Your task to perform on an android device: Open Google Maps and go to "Timeline" Image 0: 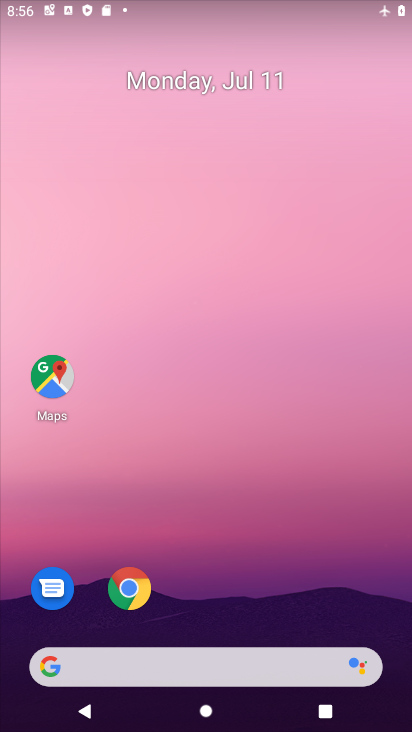
Step 0: drag from (398, 655) to (242, 64)
Your task to perform on an android device: Open Google Maps and go to "Timeline" Image 1: 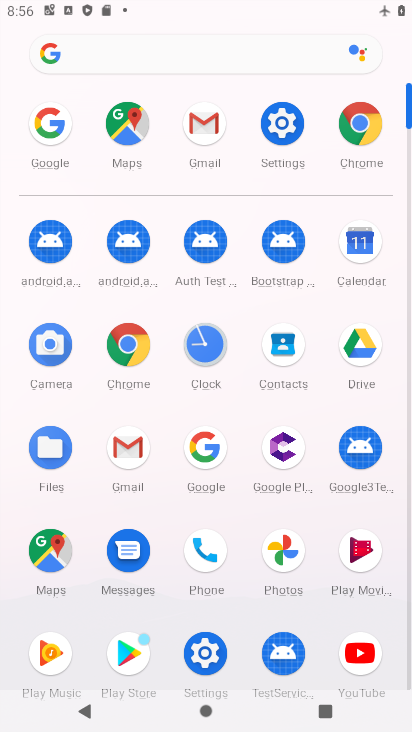
Step 1: click (40, 564)
Your task to perform on an android device: Open Google Maps and go to "Timeline" Image 2: 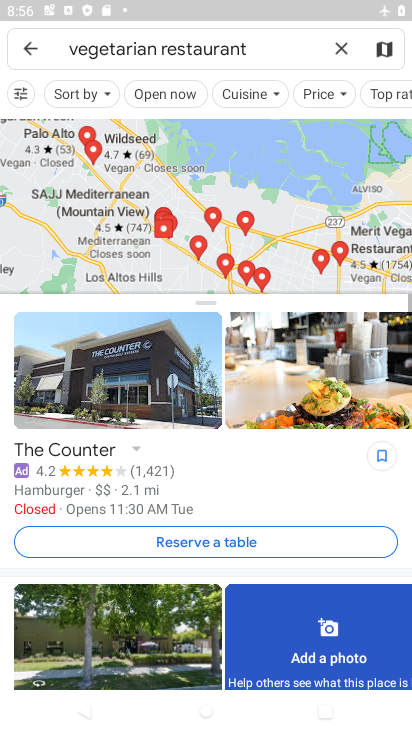
Step 2: click (341, 55)
Your task to perform on an android device: Open Google Maps and go to "Timeline" Image 3: 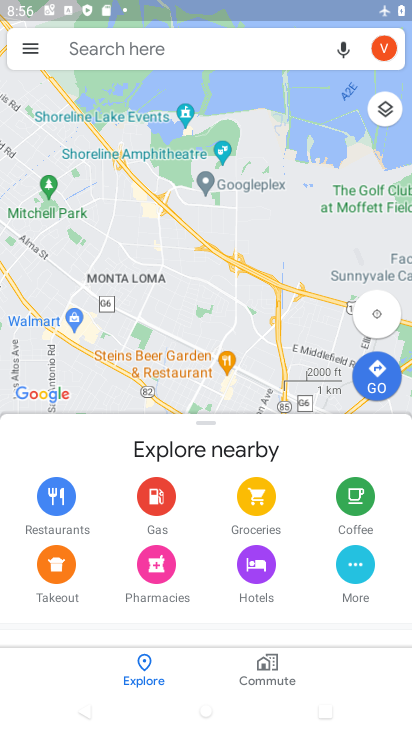
Step 3: click (27, 49)
Your task to perform on an android device: Open Google Maps and go to "Timeline" Image 4: 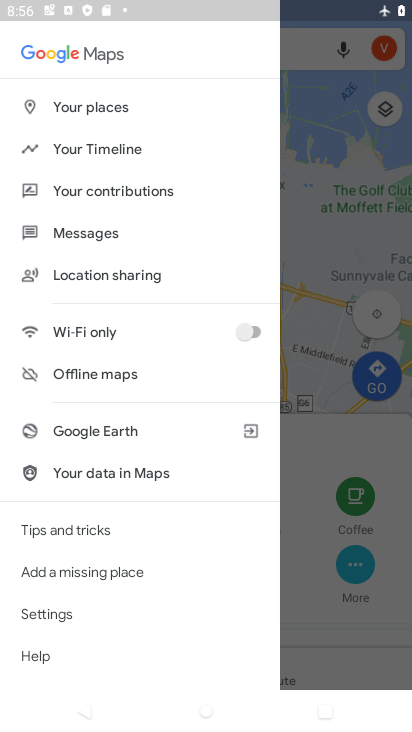
Step 4: click (99, 145)
Your task to perform on an android device: Open Google Maps and go to "Timeline" Image 5: 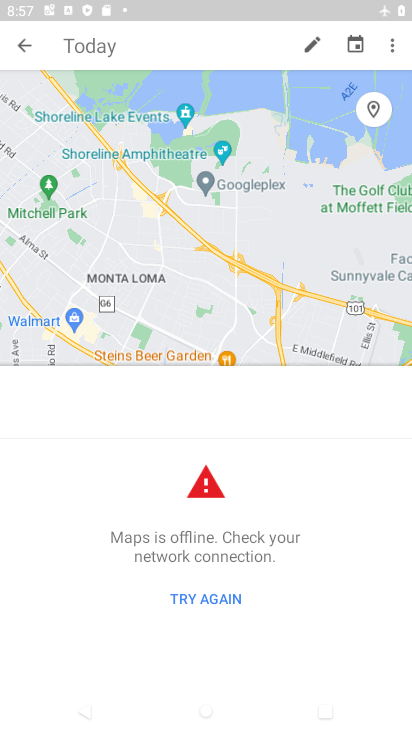
Step 5: task complete